Your task to perform on an android device: Add "corsair k70" to the cart on bestbuy.com Image 0: 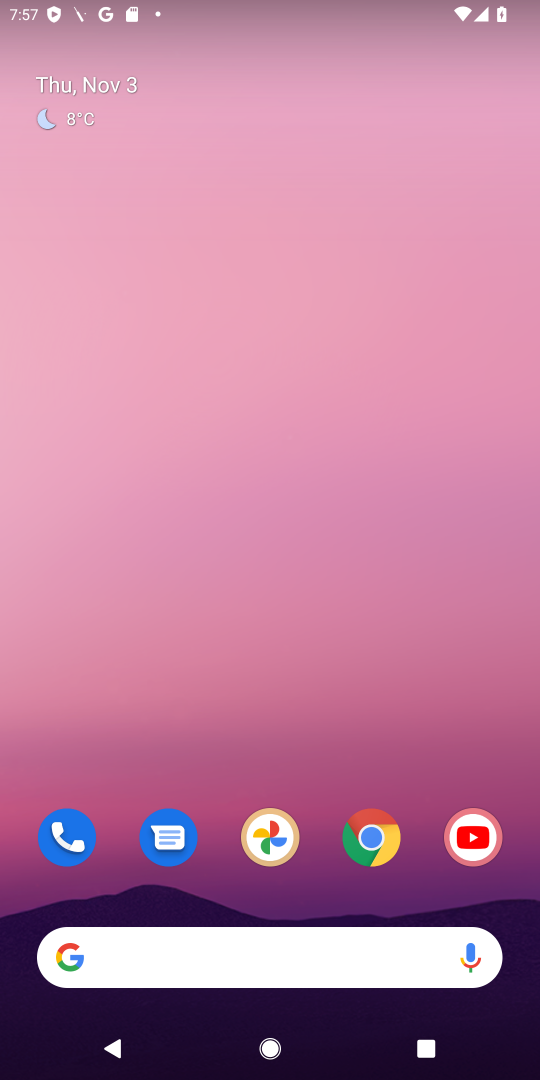
Step 0: click (375, 836)
Your task to perform on an android device: Add "corsair k70" to the cart on bestbuy.com Image 1: 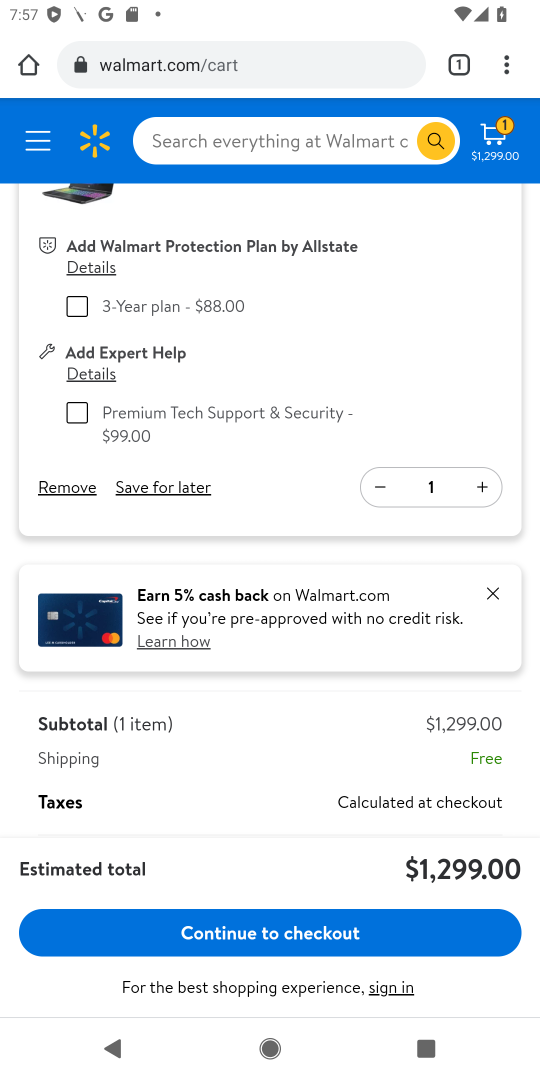
Step 1: click (278, 60)
Your task to perform on an android device: Add "corsair k70" to the cart on bestbuy.com Image 2: 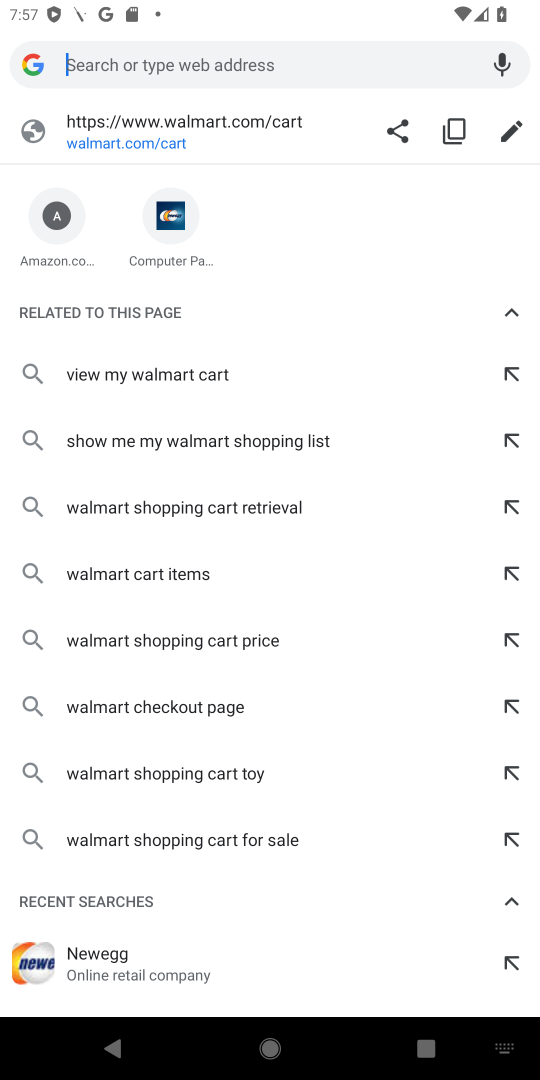
Step 2: drag from (300, 967) to (521, 234)
Your task to perform on an android device: Add "corsair k70" to the cart on bestbuy.com Image 3: 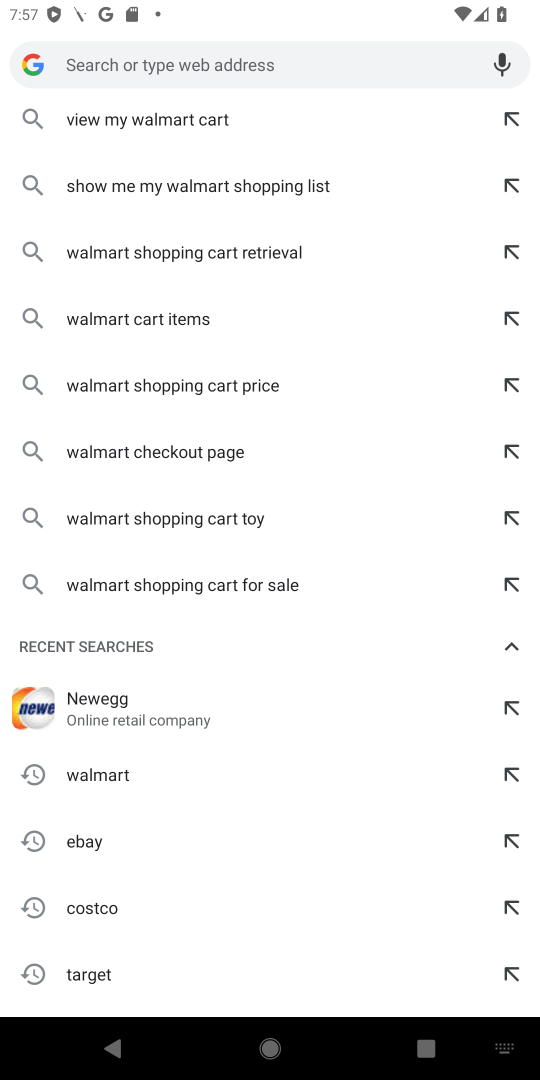
Step 3: drag from (214, 845) to (439, 429)
Your task to perform on an android device: Add "corsair k70" to the cart on bestbuy.com Image 4: 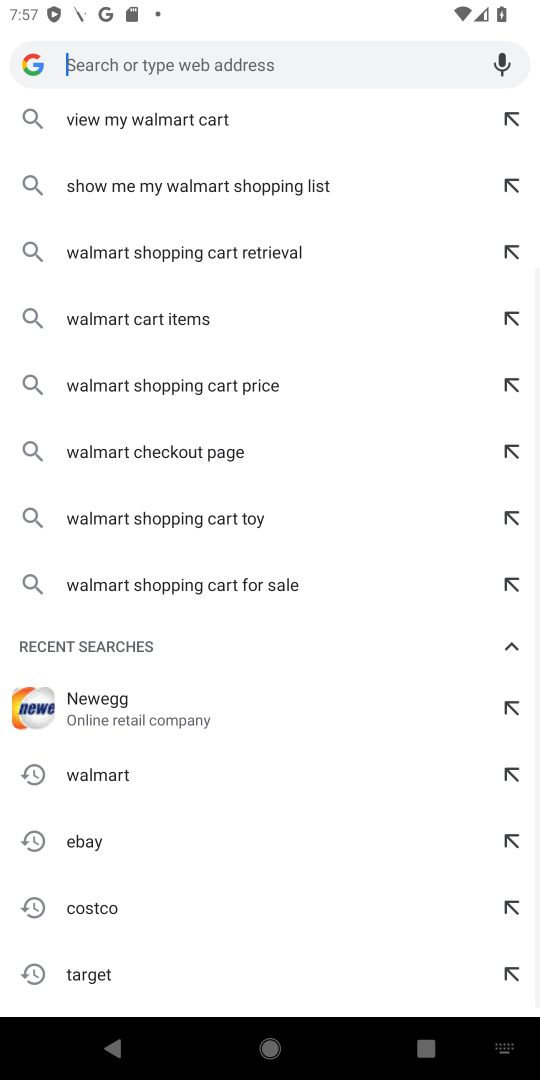
Step 4: drag from (109, 987) to (259, 441)
Your task to perform on an android device: Add "corsair k70" to the cart on bestbuy.com Image 5: 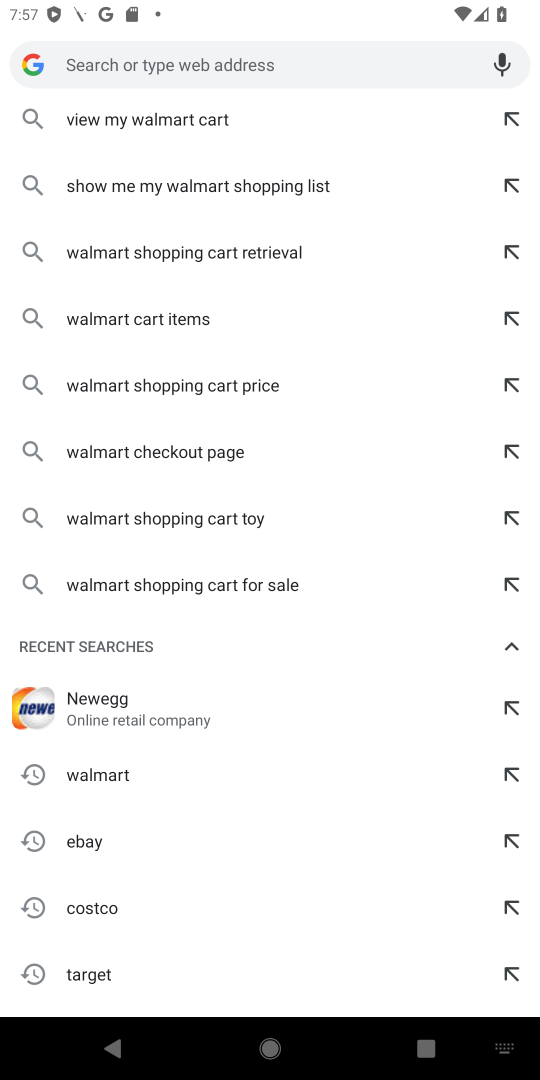
Step 5: click (233, 62)
Your task to perform on an android device: Add "corsair k70" to the cart on bestbuy.com Image 6: 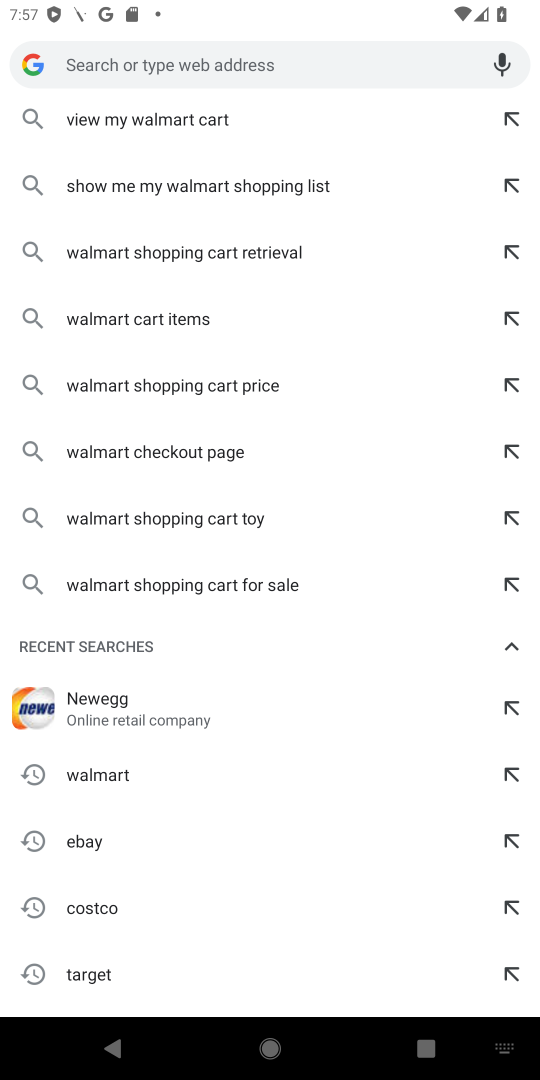
Step 6: type "bestbuy.com"
Your task to perform on an android device: Add "corsair k70" to the cart on bestbuy.com Image 7: 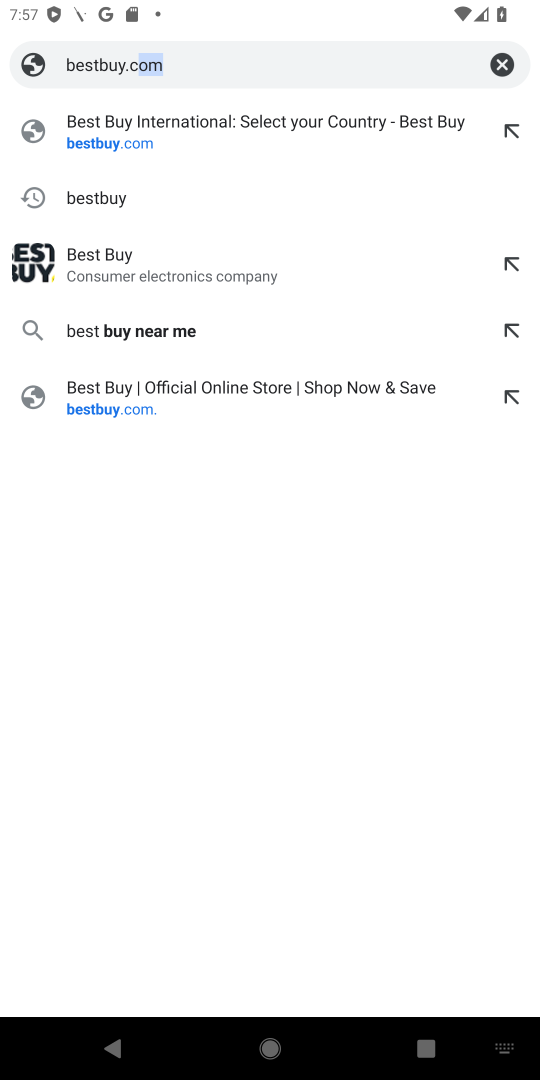
Step 7: press enter
Your task to perform on an android device: Add "corsair k70" to the cart on bestbuy.com Image 8: 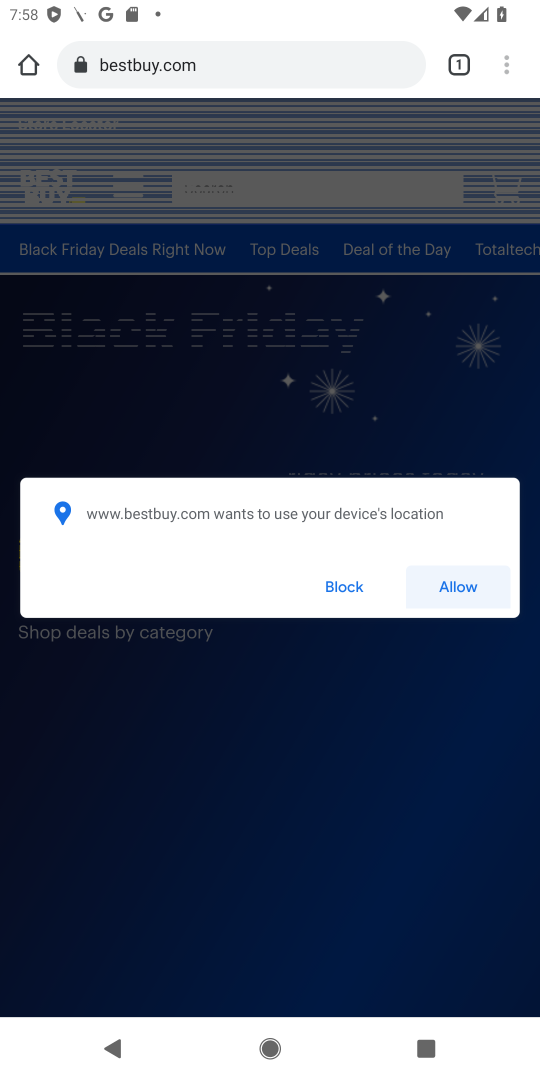
Step 8: click (358, 582)
Your task to perform on an android device: Add "corsair k70" to the cart on bestbuy.com Image 9: 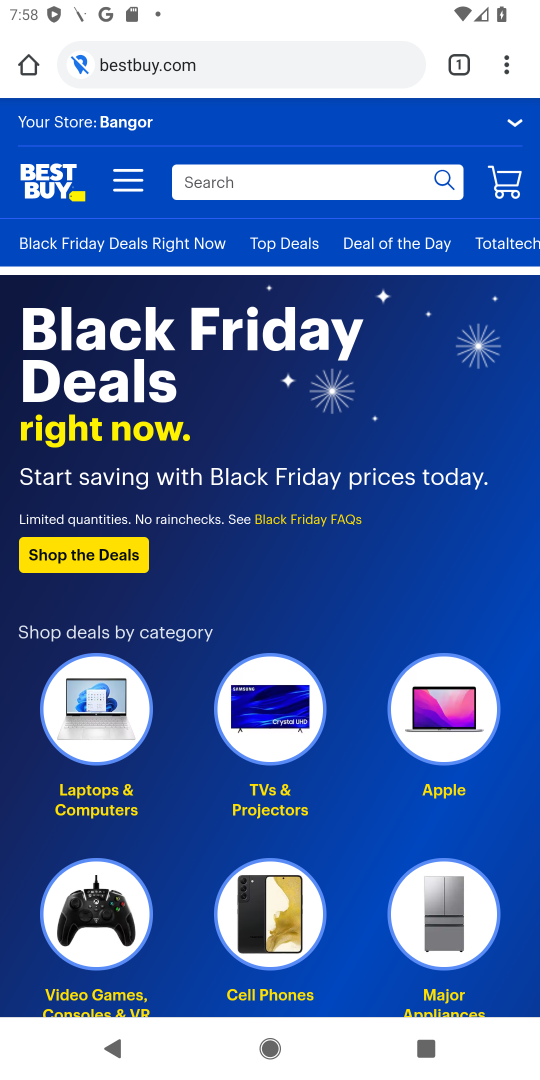
Step 9: click (344, 176)
Your task to perform on an android device: Add "corsair k70" to the cart on bestbuy.com Image 10: 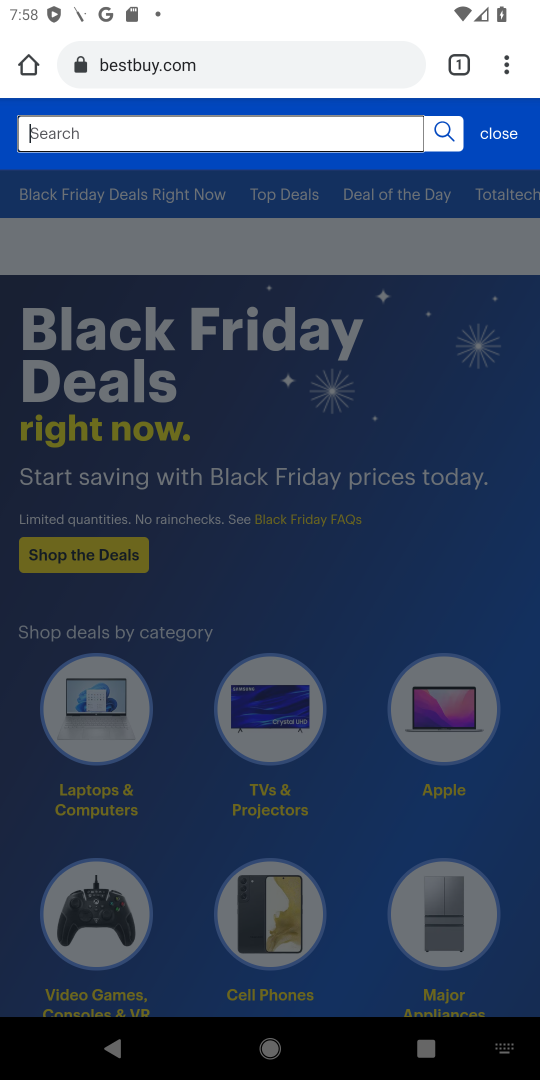
Step 10: type "corsair k70"
Your task to perform on an android device: Add "corsair k70" to the cart on bestbuy.com Image 11: 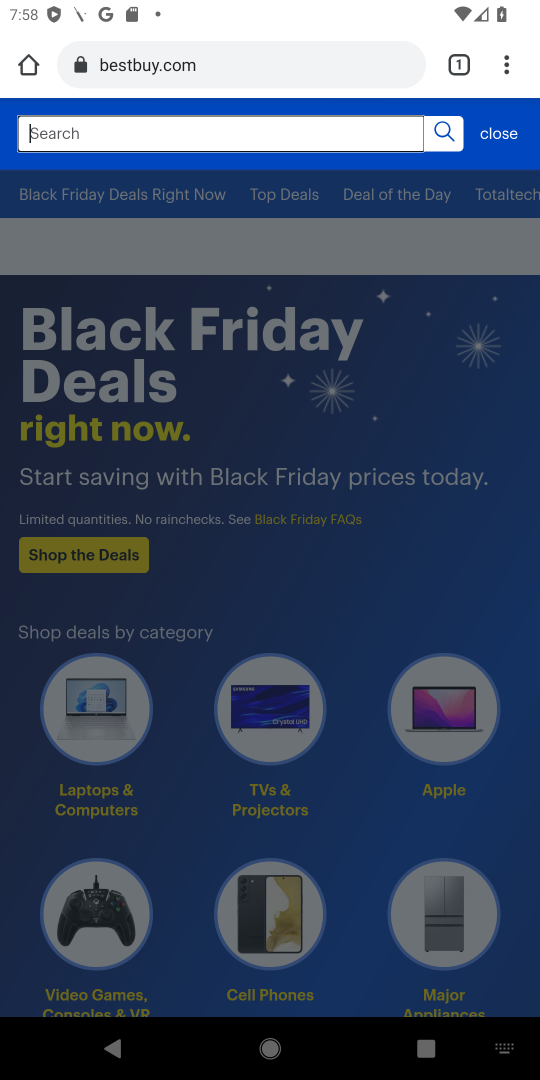
Step 11: press enter
Your task to perform on an android device: Add "corsair k70" to the cart on bestbuy.com Image 12: 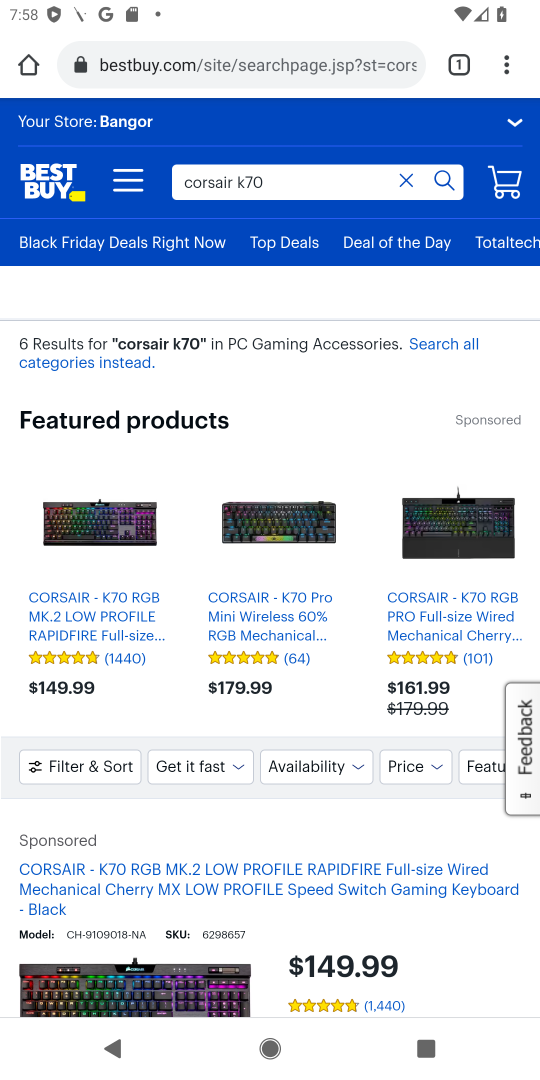
Step 12: drag from (274, 894) to (431, 451)
Your task to perform on an android device: Add "corsair k70" to the cart on bestbuy.com Image 13: 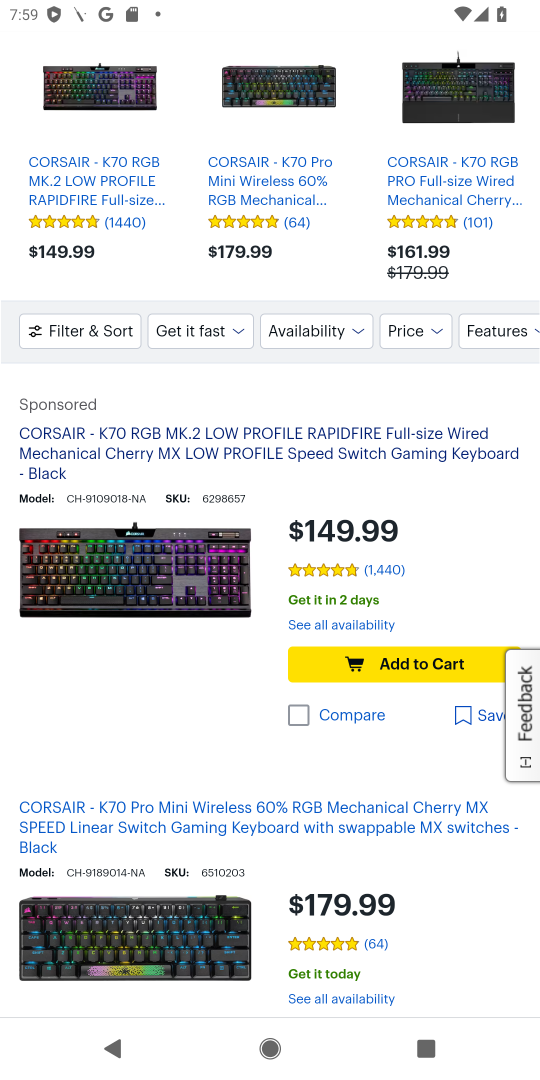
Step 13: click (417, 659)
Your task to perform on an android device: Add "corsair k70" to the cart on bestbuy.com Image 14: 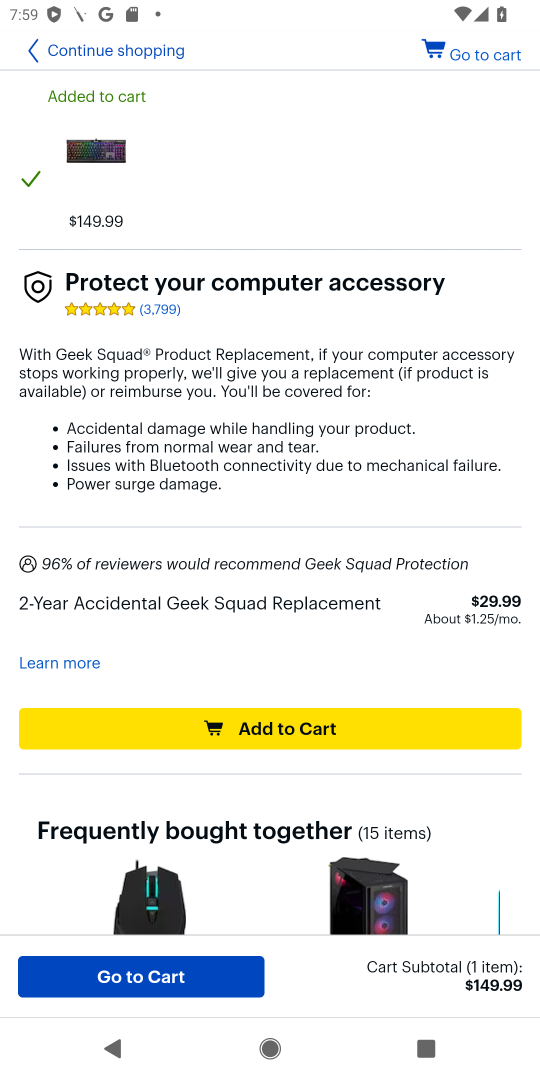
Step 14: task complete